Your task to perform on an android device: turn vacation reply on in the gmail app Image 0: 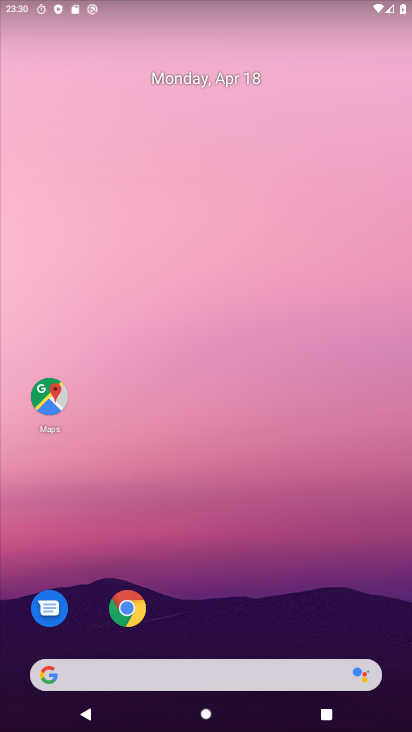
Step 0: drag from (247, 578) to (280, 75)
Your task to perform on an android device: turn vacation reply on in the gmail app Image 1: 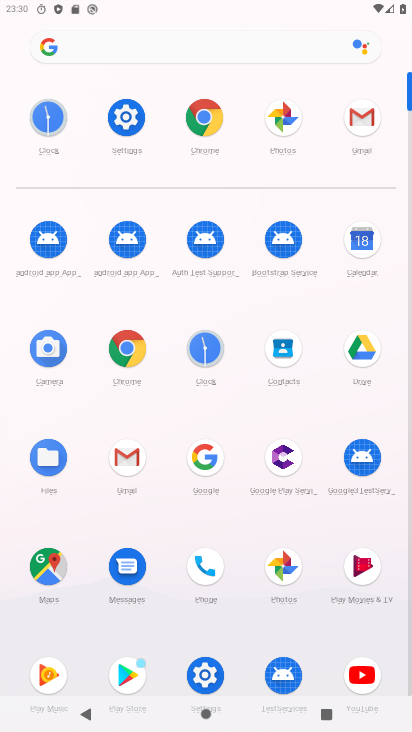
Step 1: click (359, 122)
Your task to perform on an android device: turn vacation reply on in the gmail app Image 2: 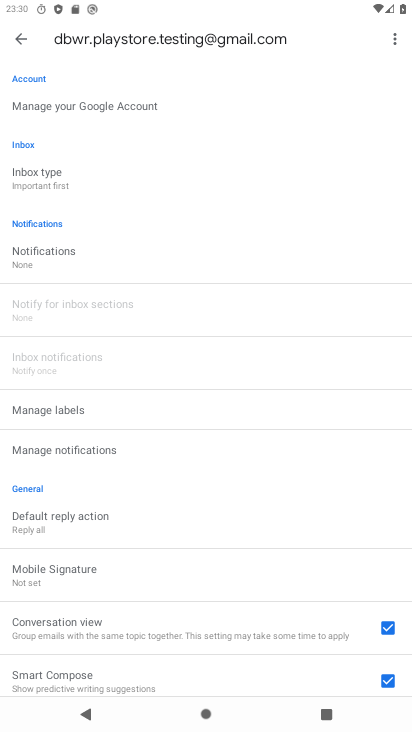
Step 2: drag from (130, 558) to (178, 31)
Your task to perform on an android device: turn vacation reply on in the gmail app Image 3: 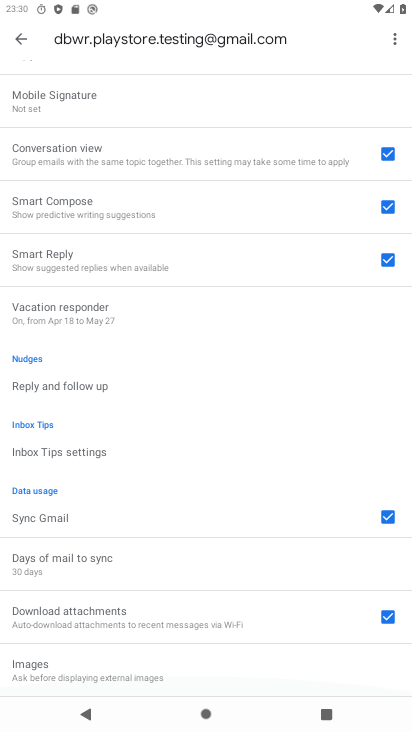
Step 3: drag from (91, 661) to (182, 130)
Your task to perform on an android device: turn vacation reply on in the gmail app Image 4: 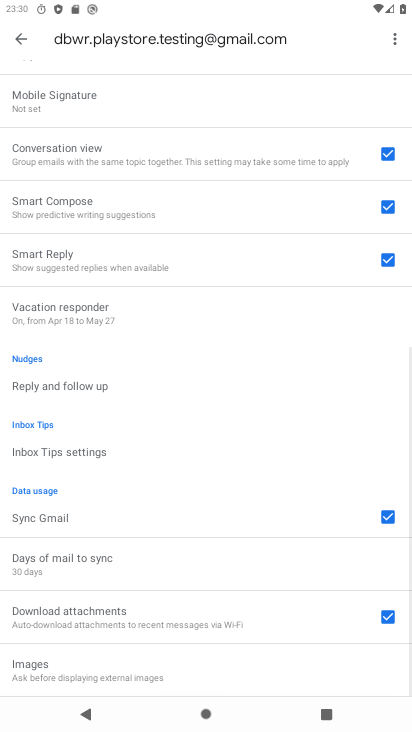
Step 4: drag from (83, 275) to (144, 621)
Your task to perform on an android device: turn vacation reply on in the gmail app Image 5: 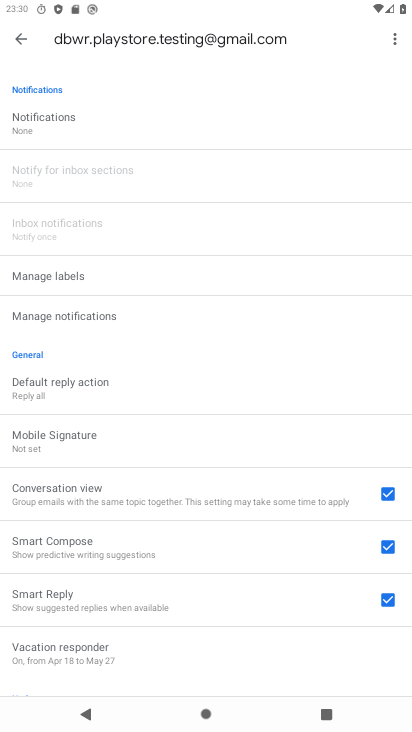
Step 5: click (87, 644)
Your task to perform on an android device: turn vacation reply on in the gmail app Image 6: 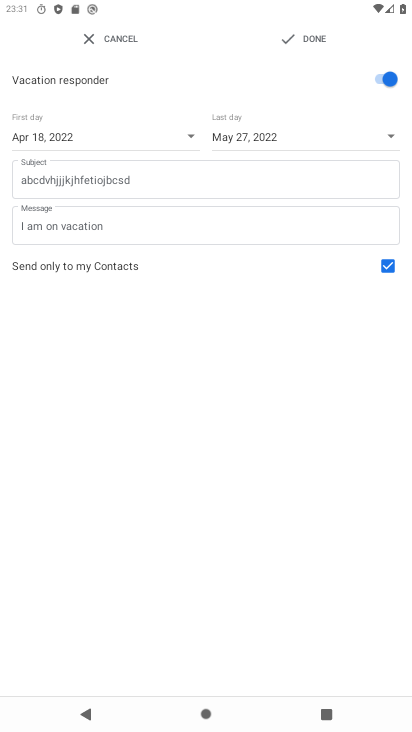
Step 6: task complete